Your task to perform on an android device: change the clock style Image 0: 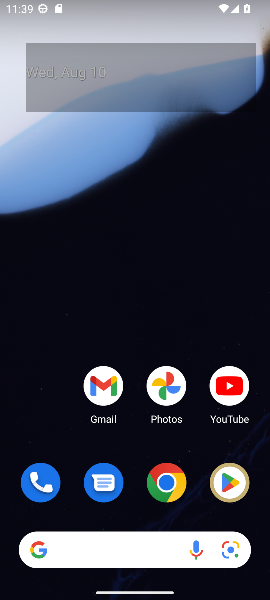
Step 0: drag from (35, 426) to (39, 93)
Your task to perform on an android device: change the clock style Image 1: 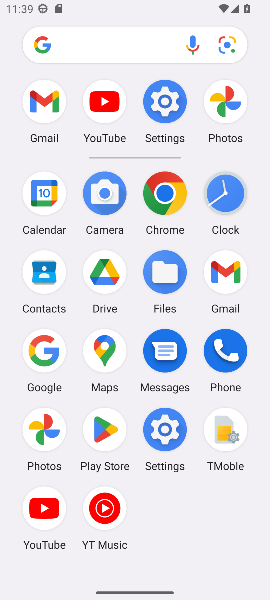
Step 1: click (225, 189)
Your task to perform on an android device: change the clock style Image 2: 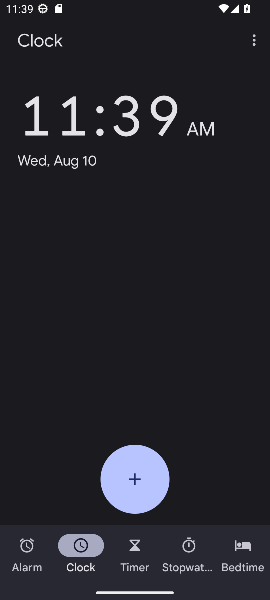
Step 2: task complete